Your task to perform on an android device: Open Google Chrome and click the shortcut for Amazon.com Image 0: 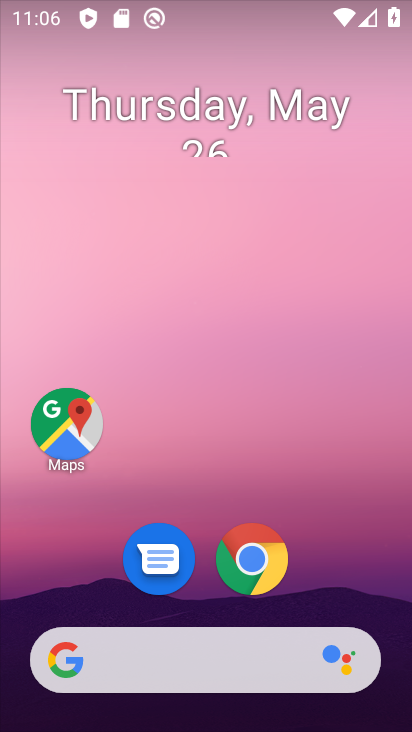
Step 0: click (269, 558)
Your task to perform on an android device: Open Google Chrome and click the shortcut for Amazon.com Image 1: 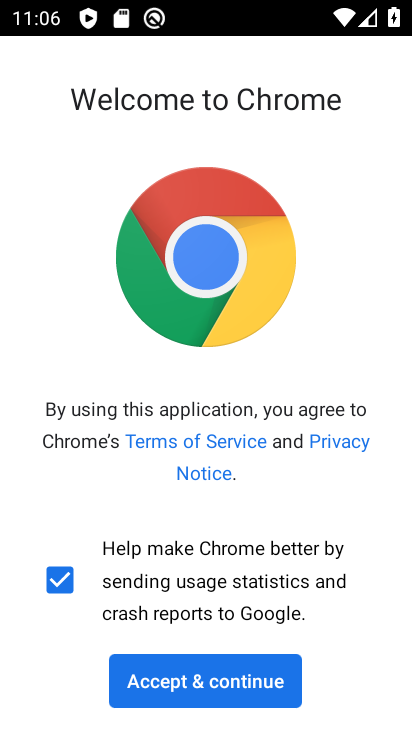
Step 1: click (228, 673)
Your task to perform on an android device: Open Google Chrome and click the shortcut for Amazon.com Image 2: 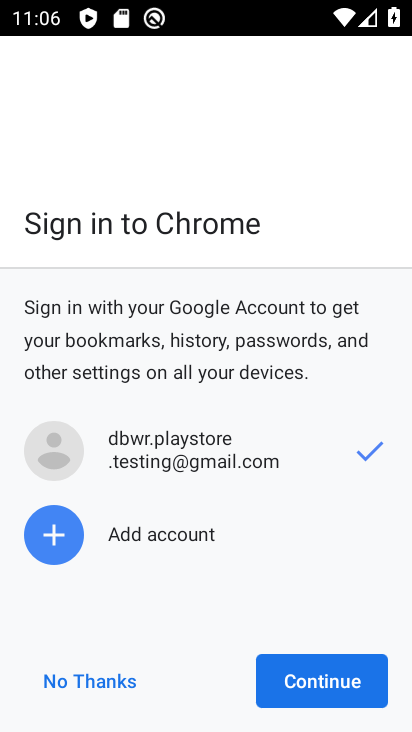
Step 2: click (275, 682)
Your task to perform on an android device: Open Google Chrome and click the shortcut for Amazon.com Image 3: 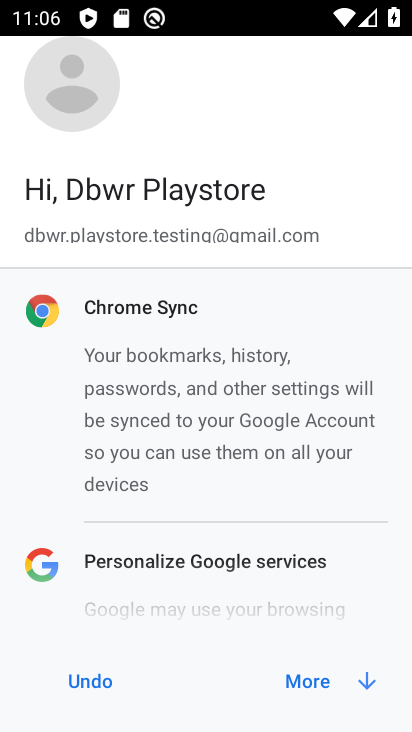
Step 3: click (302, 682)
Your task to perform on an android device: Open Google Chrome and click the shortcut for Amazon.com Image 4: 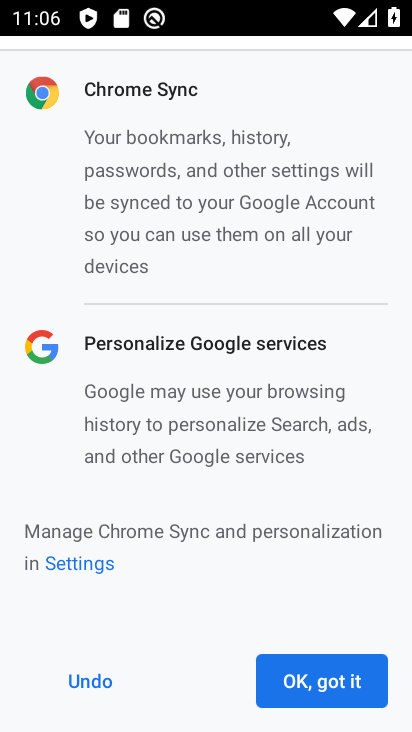
Step 4: click (302, 682)
Your task to perform on an android device: Open Google Chrome and click the shortcut for Amazon.com Image 5: 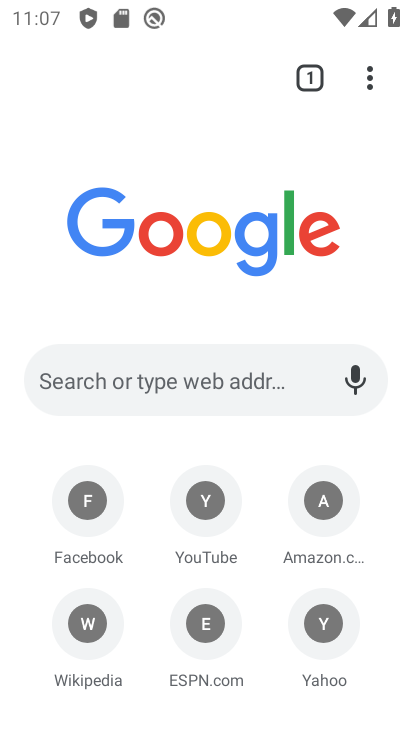
Step 5: click (326, 517)
Your task to perform on an android device: Open Google Chrome and click the shortcut for Amazon.com Image 6: 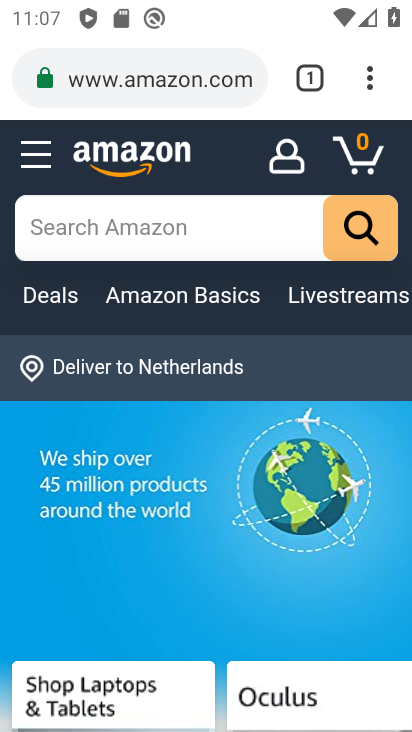
Step 6: task complete